Your task to perform on an android device: turn smart compose on in the gmail app Image 0: 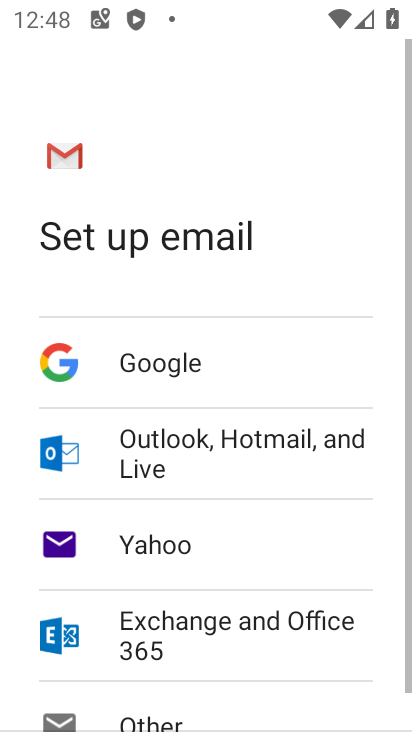
Step 0: press home button
Your task to perform on an android device: turn smart compose on in the gmail app Image 1: 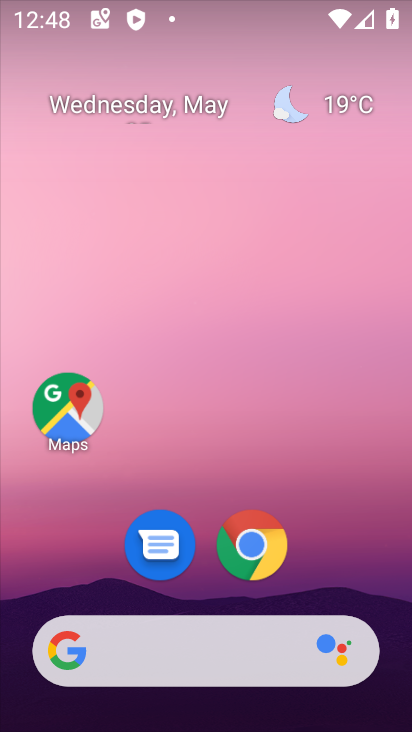
Step 1: drag from (189, 591) to (236, 4)
Your task to perform on an android device: turn smart compose on in the gmail app Image 2: 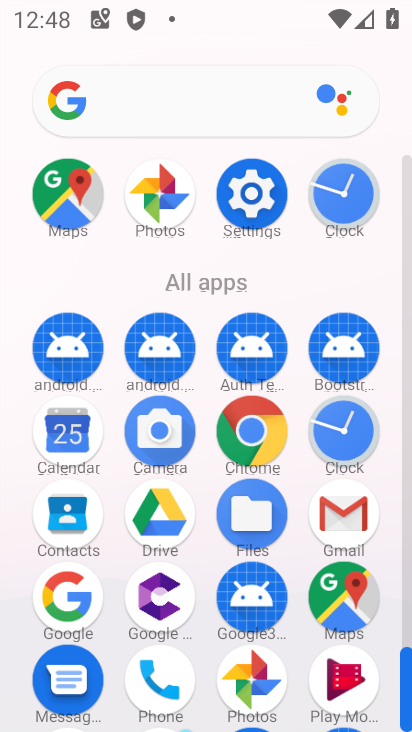
Step 2: click (344, 510)
Your task to perform on an android device: turn smart compose on in the gmail app Image 3: 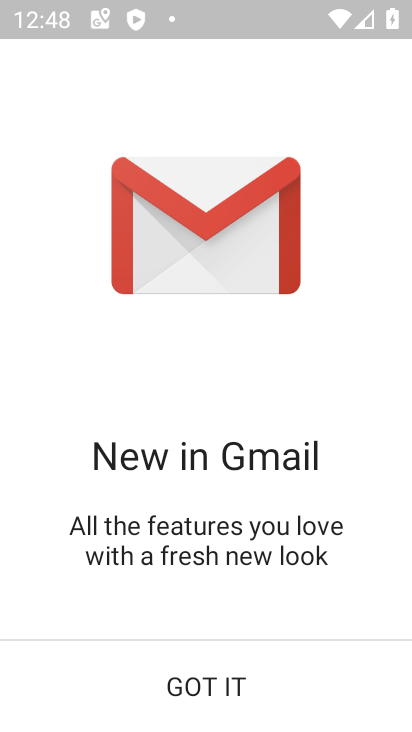
Step 3: click (200, 692)
Your task to perform on an android device: turn smart compose on in the gmail app Image 4: 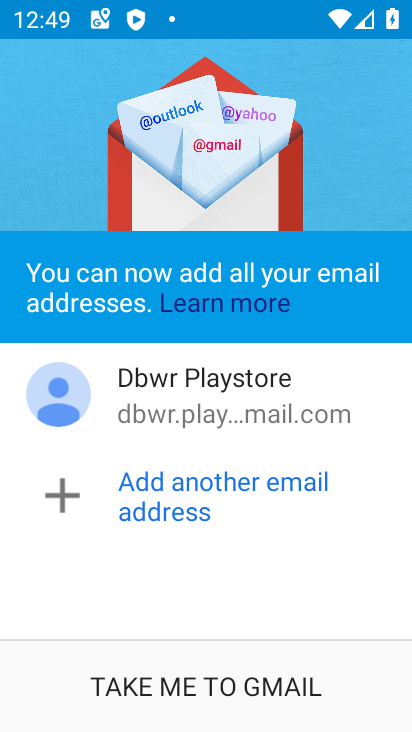
Step 4: click (200, 692)
Your task to perform on an android device: turn smart compose on in the gmail app Image 5: 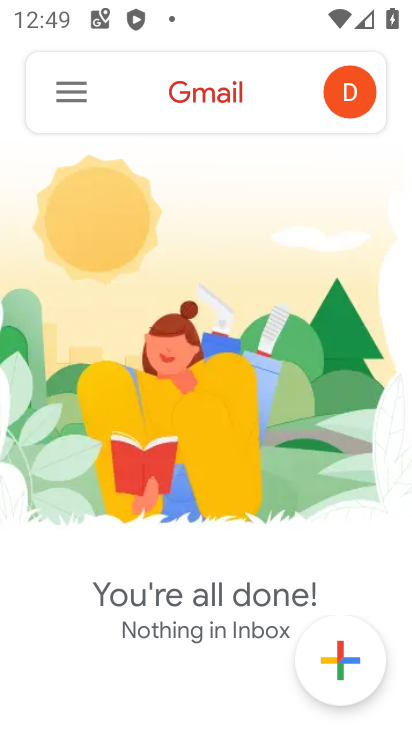
Step 5: click (62, 98)
Your task to perform on an android device: turn smart compose on in the gmail app Image 6: 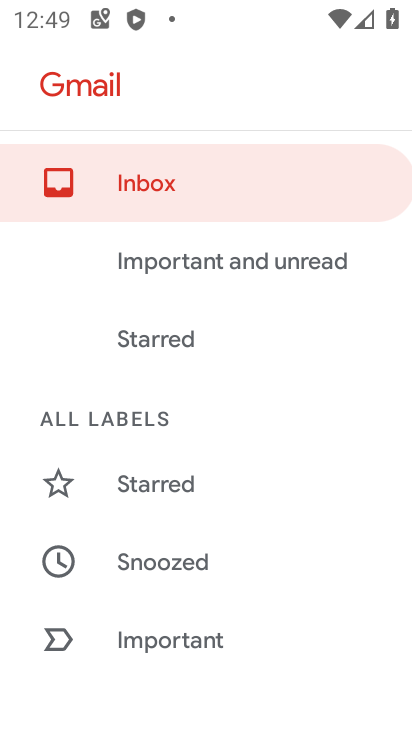
Step 6: drag from (144, 662) to (232, 96)
Your task to perform on an android device: turn smart compose on in the gmail app Image 7: 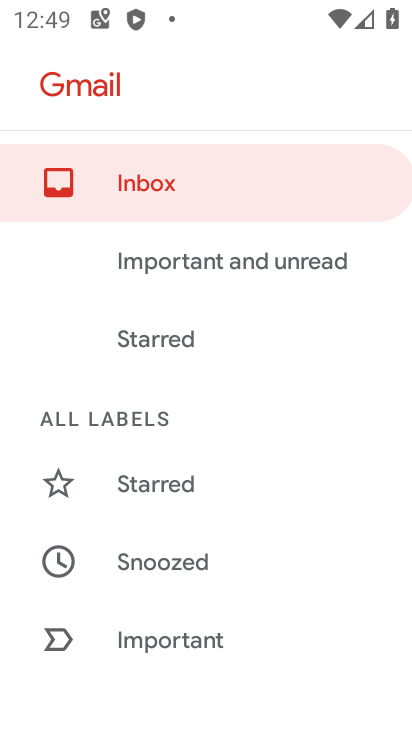
Step 7: drag from (152, 710) to (219, 135)
Your task to perform on an android device: turn smart compose on in the gmail app Image 8: 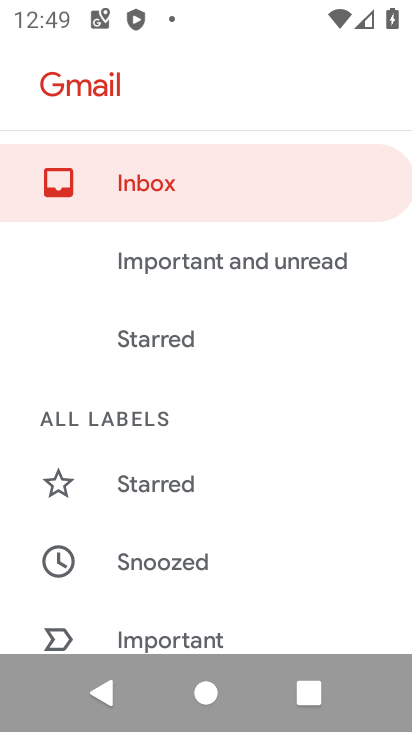
Step 8: drag from (211, 567) to (224, 104)
Your task to perform on an android device: turn smart compose on in the gmail app Image 9: 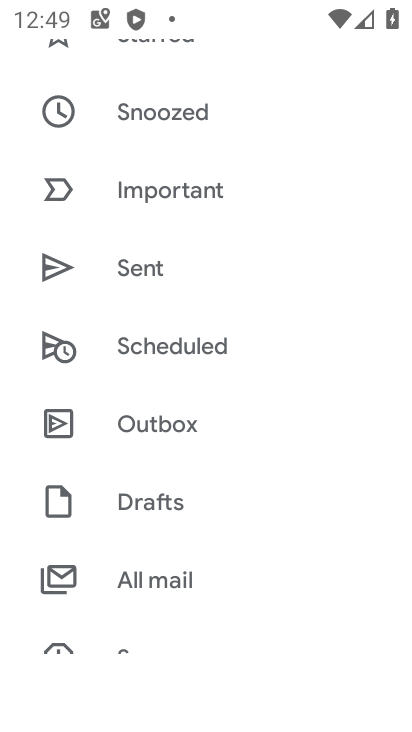
Step 9: drag from (161, 575) to (229, 72)
Your task to perform on an android device: turn smart compose on in the gmail app Image 10: 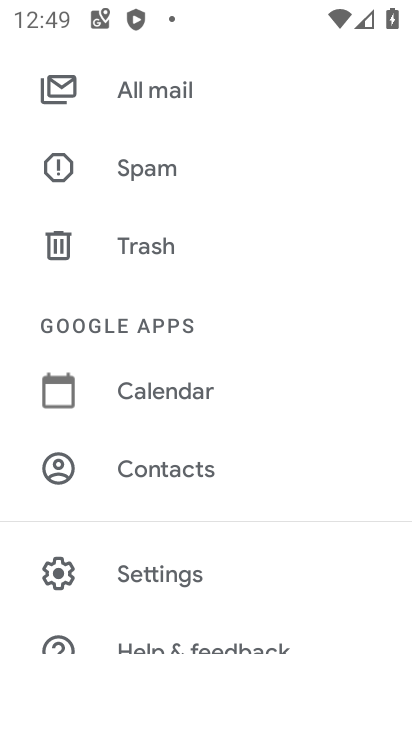
Step 10: click (132, 572)
Your task to perform on an android device: turn smart compose on in the gmail app Image 11: 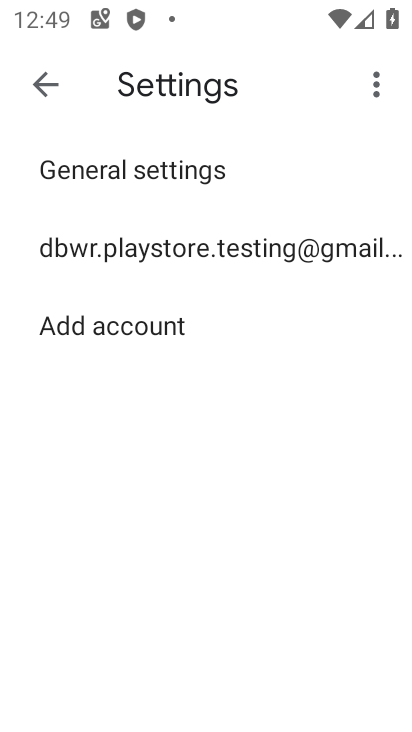
Step 11: click (293, 249)
Your task to perform on an android device: turn smart compose on in the gmail app Image 12: 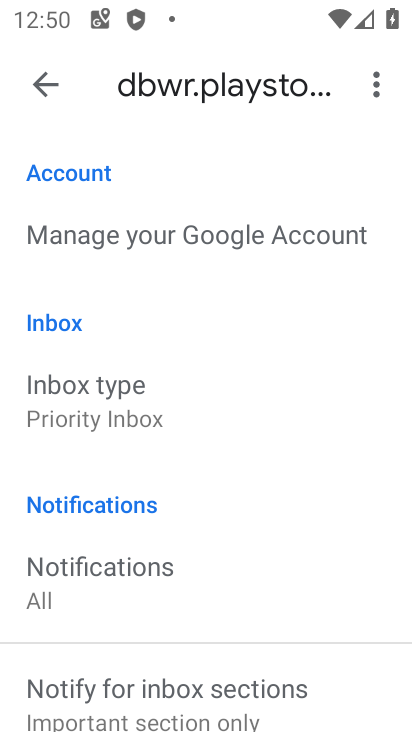
Step 12: click (293, 249)
Your task to perform on an android device: turn smart compose on in the gmail app Image 13: 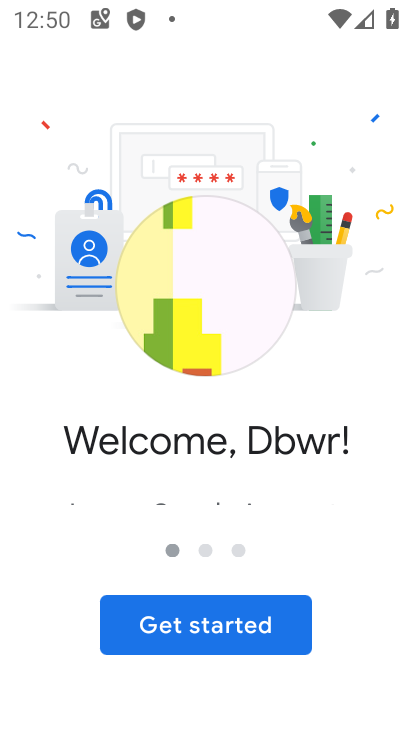
Step 13: click (213, 609)
Your task to perform on an android device: turn smart compose on in the gmail app Image 14: 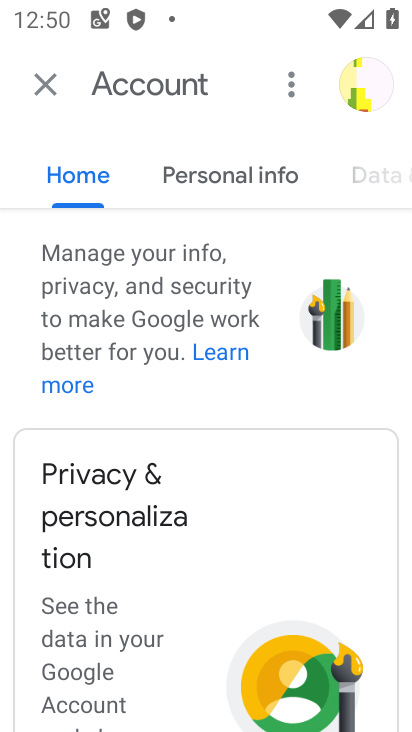
Step 14: click (38, 85)
Your task to perform on an android device: turn smart compose on in the gmail app Image 15: 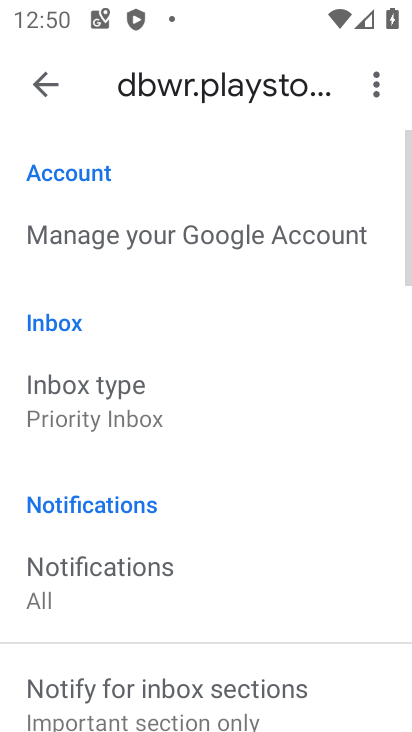
Step 15: click (38, 85)
Your task to perform on an android device: turn smart compose on in the gmail app Image 16: 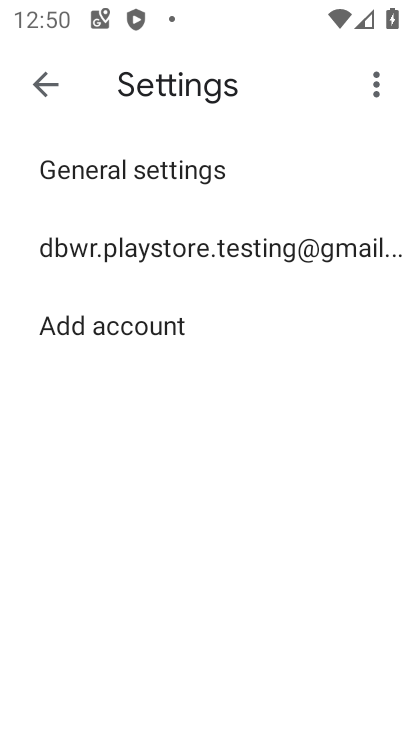
Step 16: click (19, 65)
Your task to perform on an android device: turn smart compose on in the gmail app Image 17: 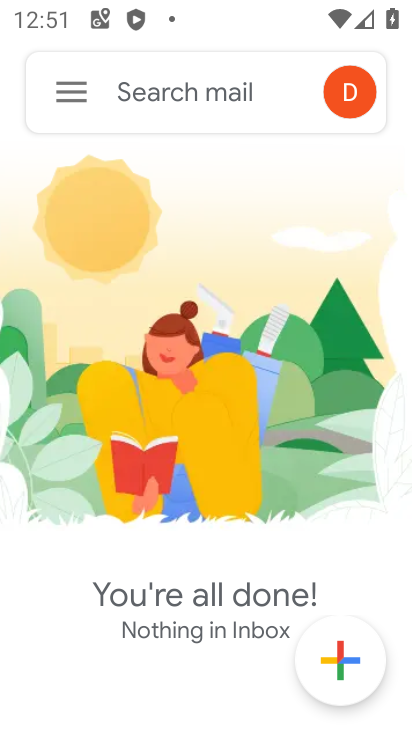
Step 17: click (89, 91)
Your task to perform on an android device: turn smart compose on in the gmail app Image 18: 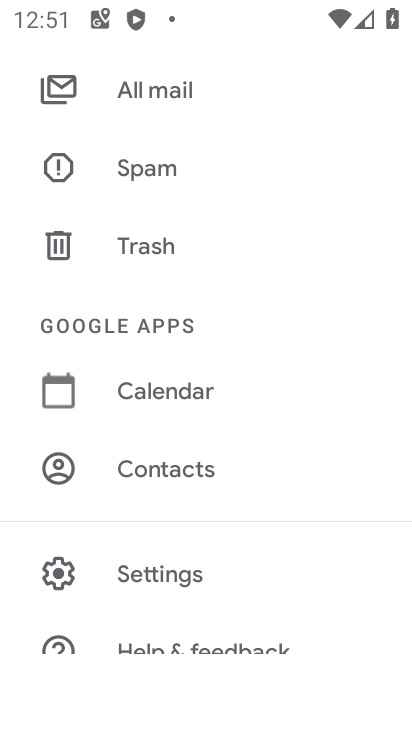
Step 18: click (142, 576)
Your task to perform on an android device: turn smart compose on in the gmail app Image 19: 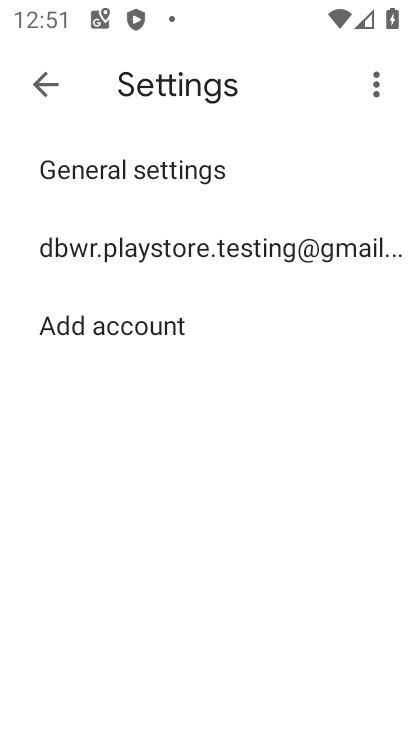
Step 19: click (145, 285)
Your task to perform on an android device: turn smart compose on in the gmail app Image 20: 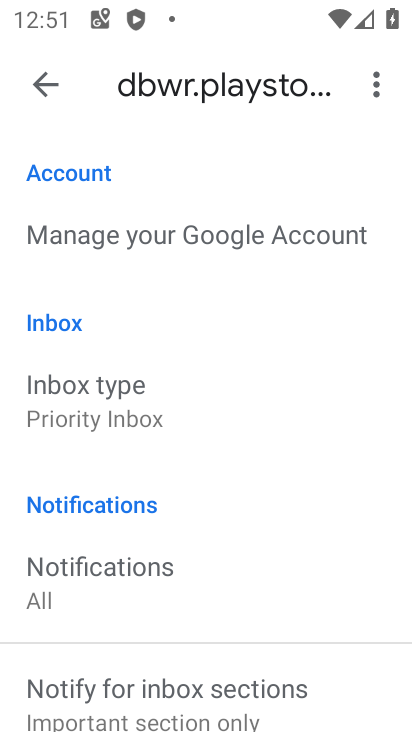
Step 20: task complete